Your task to perform on an android device: allow cookies in the chrome app Image 0: 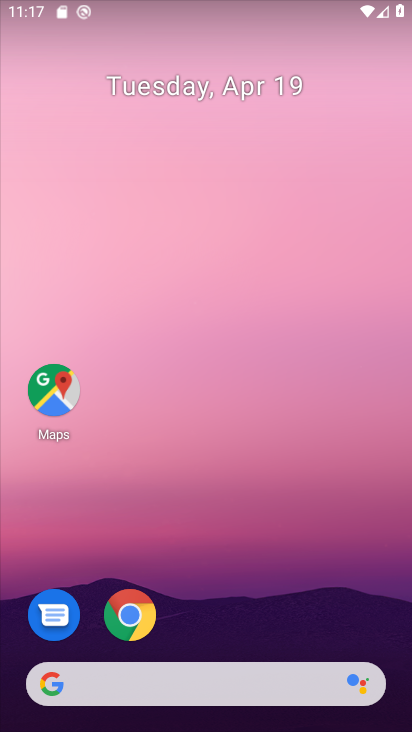
Step 0: drag from (175, 662) to (242, 195)
Your task to perform on an android device: allow cookies in the chrome app Image 1: 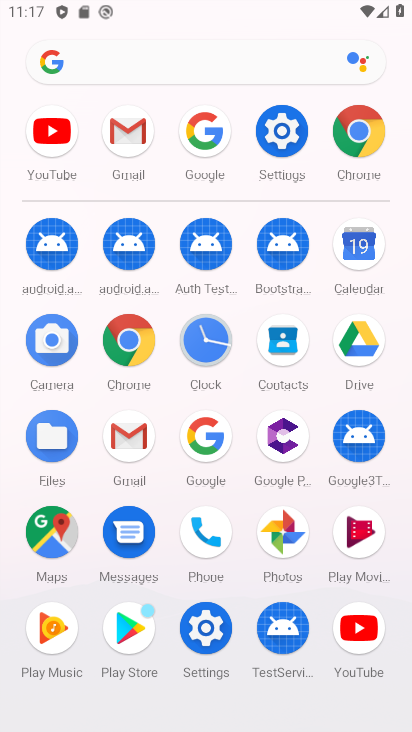
Step 1: click (361, 135)
Your task to perform on an android device: allow cookies in the chrome app Image 2: 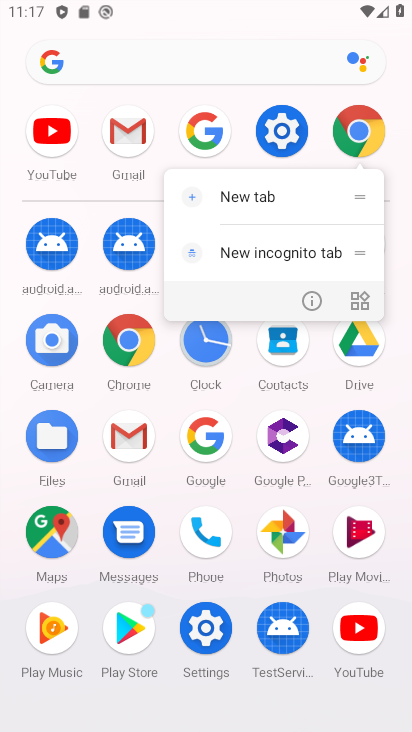
Step 2: click (361, 135)
Your task to perform on an android device: allow cookies in the chrome app Image 3: 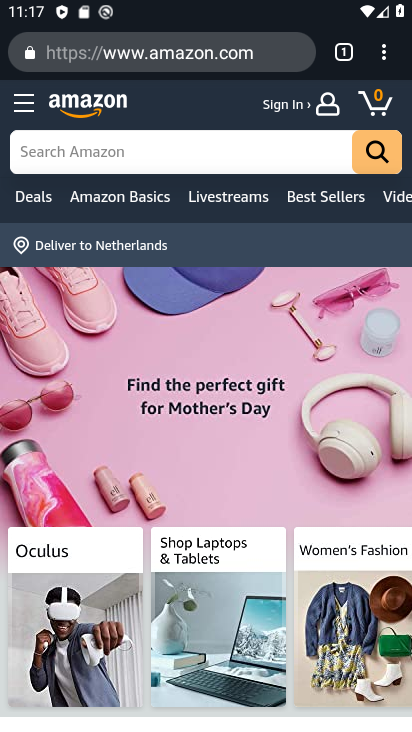
Step 3: click (384, 53)
Your task to perform on an android device: allow cookies in the chrome app Image 4: 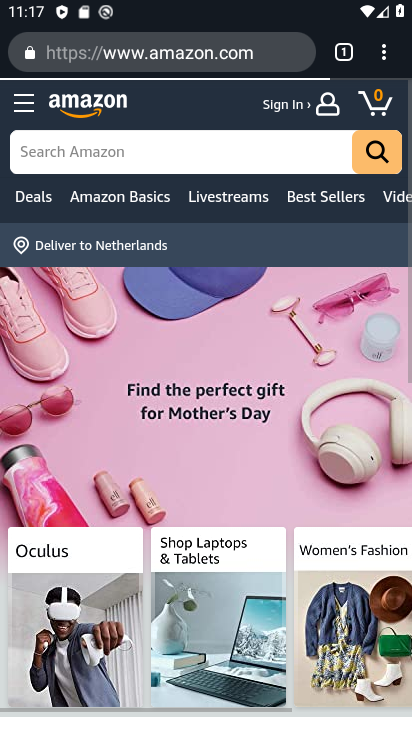
Step 4: click (384, 53)
Your task to perform on an android device: allow cookies in the chrome app Image 5: 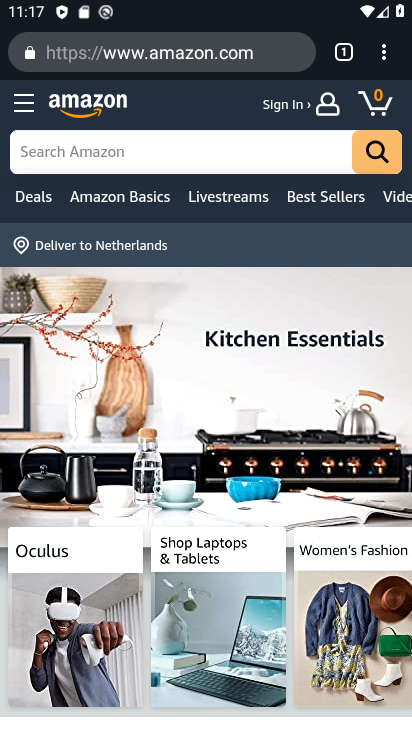
Step 5: click (384, 53)
Your task to perform on an android device: allow cookies in the chrome app Image 6: 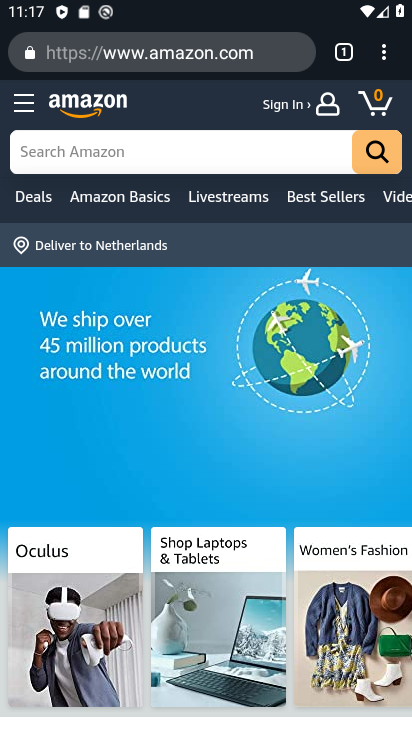
Step 6: click (384, 53)
Your task to perform on an android device: allow cookies in the chrome app Image 7: 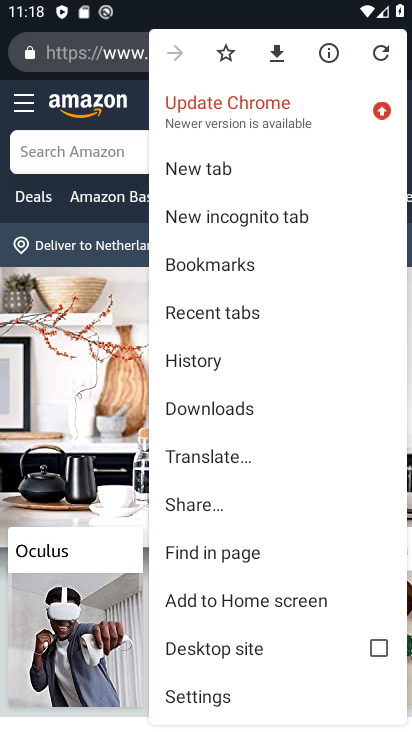
Step 7: click (216, 698)
Your task to perform on an android device: allow cookies in the chrome app Image 8: 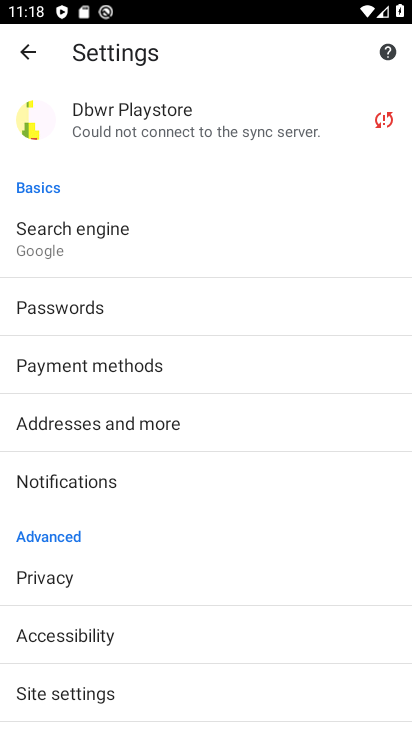
Step 8: click (93, 692)
Your task to perform on an android device: allow cookies in the chrome app Image 9: 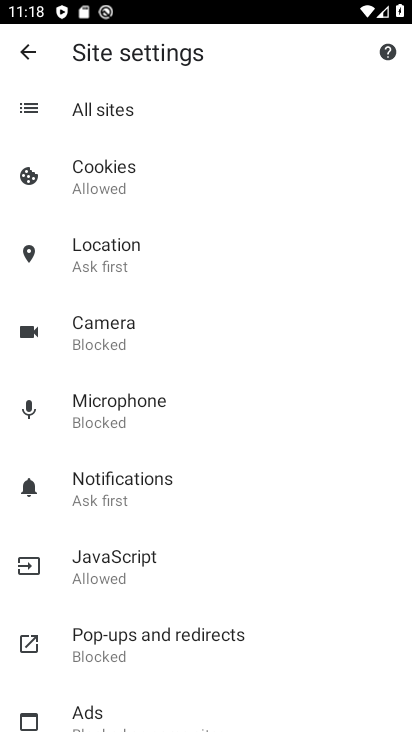
Step 9: click (106, 178)
Your task to perform on an android device: allow cookies in the chrome app Image 10: 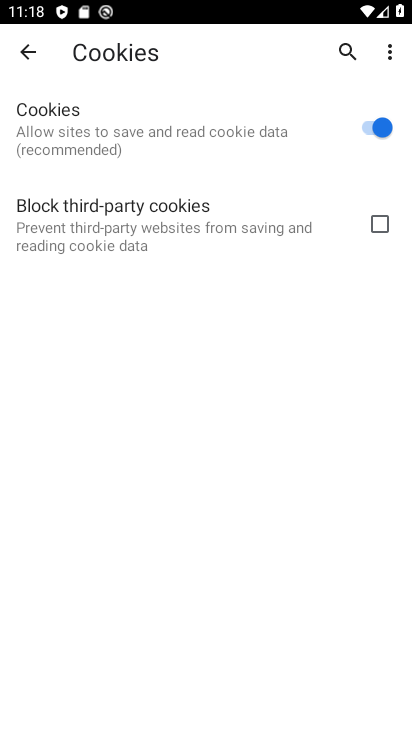
Step 10: task complete